Your task to perform on an android device: Show me the alarms in the clock app Image 0: 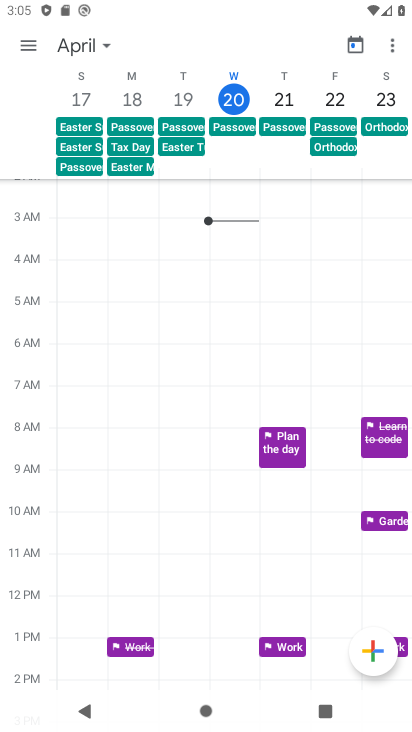
Step 0: press home button
Your task to perform on an android device: Show me the alarms in the clock app Image 1: 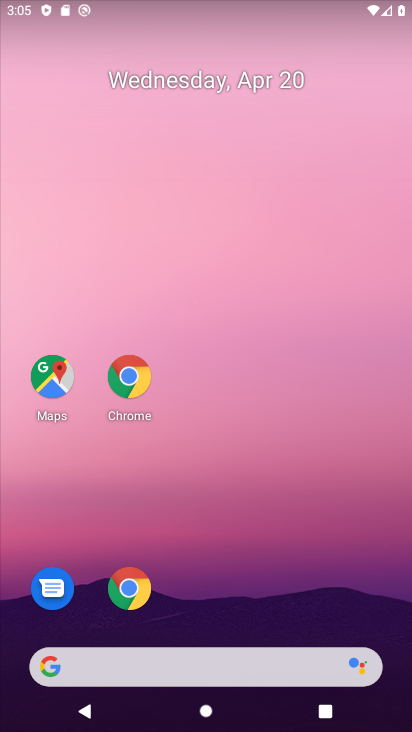
Step 1: drag from (213, 650) to (290, 184)
Your task to perform on an android device: Show me the alarms in the clock app Image 2: 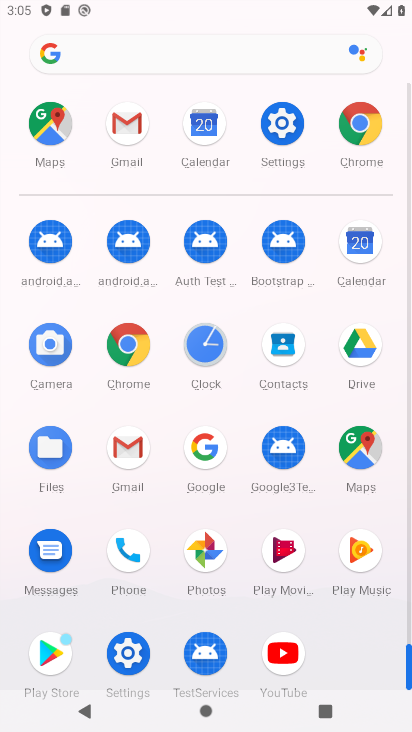
Step 2: click (207, 348)
Your task to perform on an android device: Show me the alarms in the clock app Image 3: 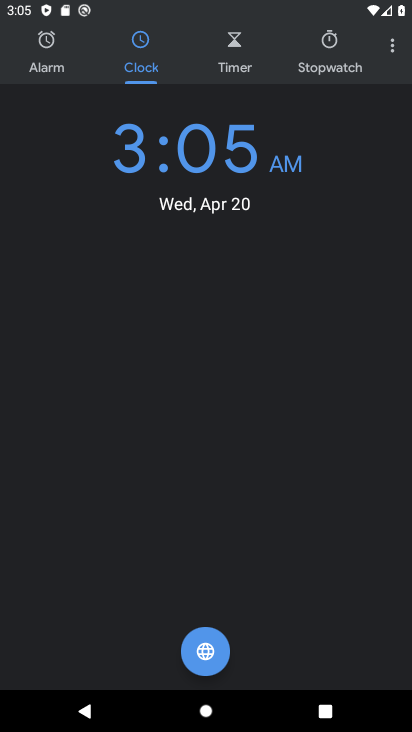
Step 3: click (51, 60)
Your task to perform on an android device: Show me the alarms in the clock app Image 4: 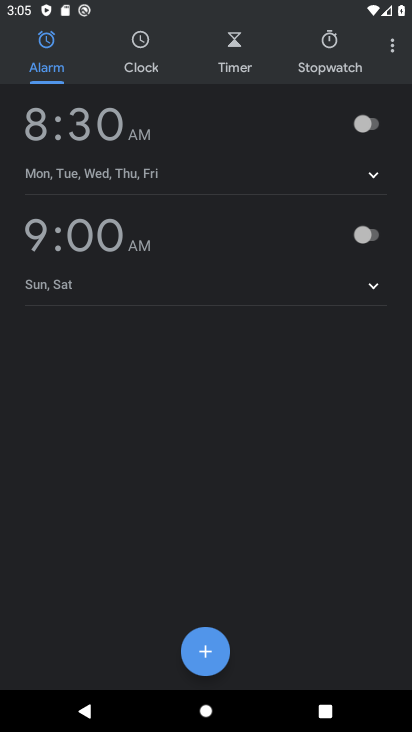
Step 4: task complete